Your task to perform on an android device: set an alarm Image 0: 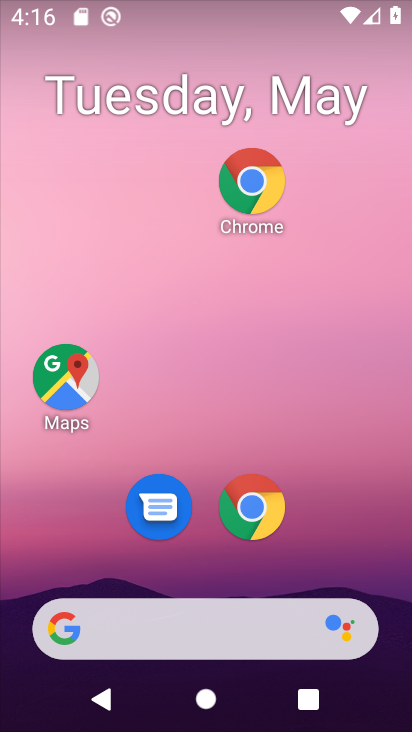
Step 0: drag from (366, 520) to (301, 87)
Your task to perform on an android device: set an alarm Image 1: 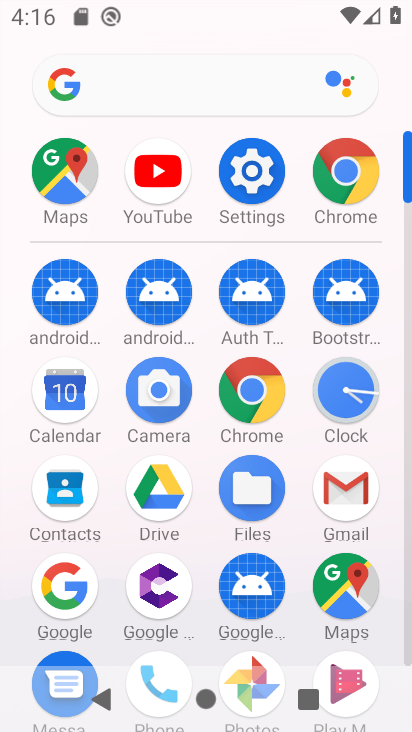
Step 1: click (354, 410)
Your task to perform on an android device: set an alarm Image 2: 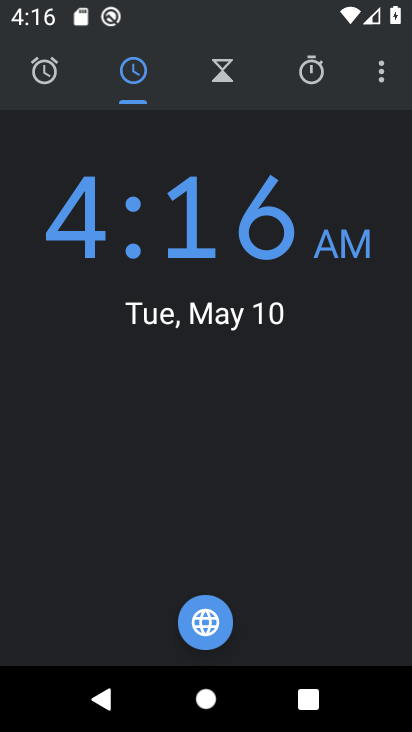
Step 2: click (35, 76)
Your task to perform on an android device: set an alarm Image 3: 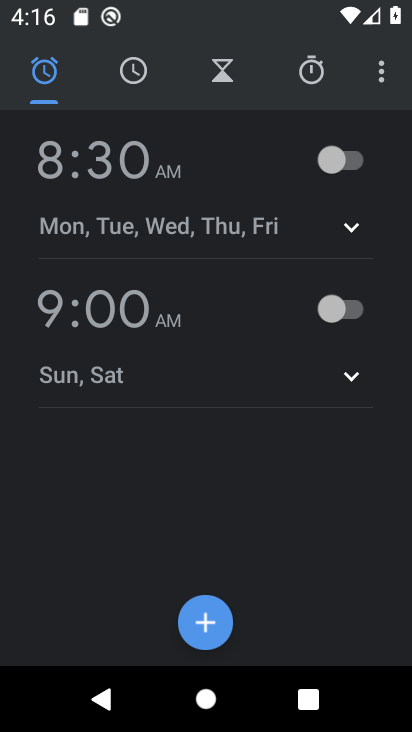
Step 3: click (328, 166)
Your task to perform on an android device: set an alarm Image 4: 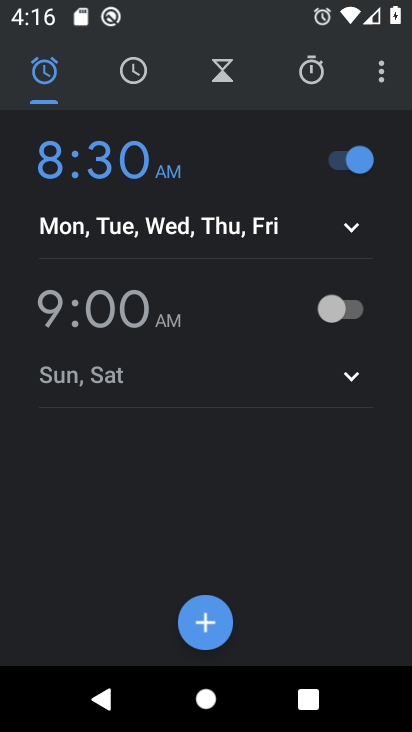
Step 4: task complete